Your task to perform on an android device: Open Yahoo.com Image 0: 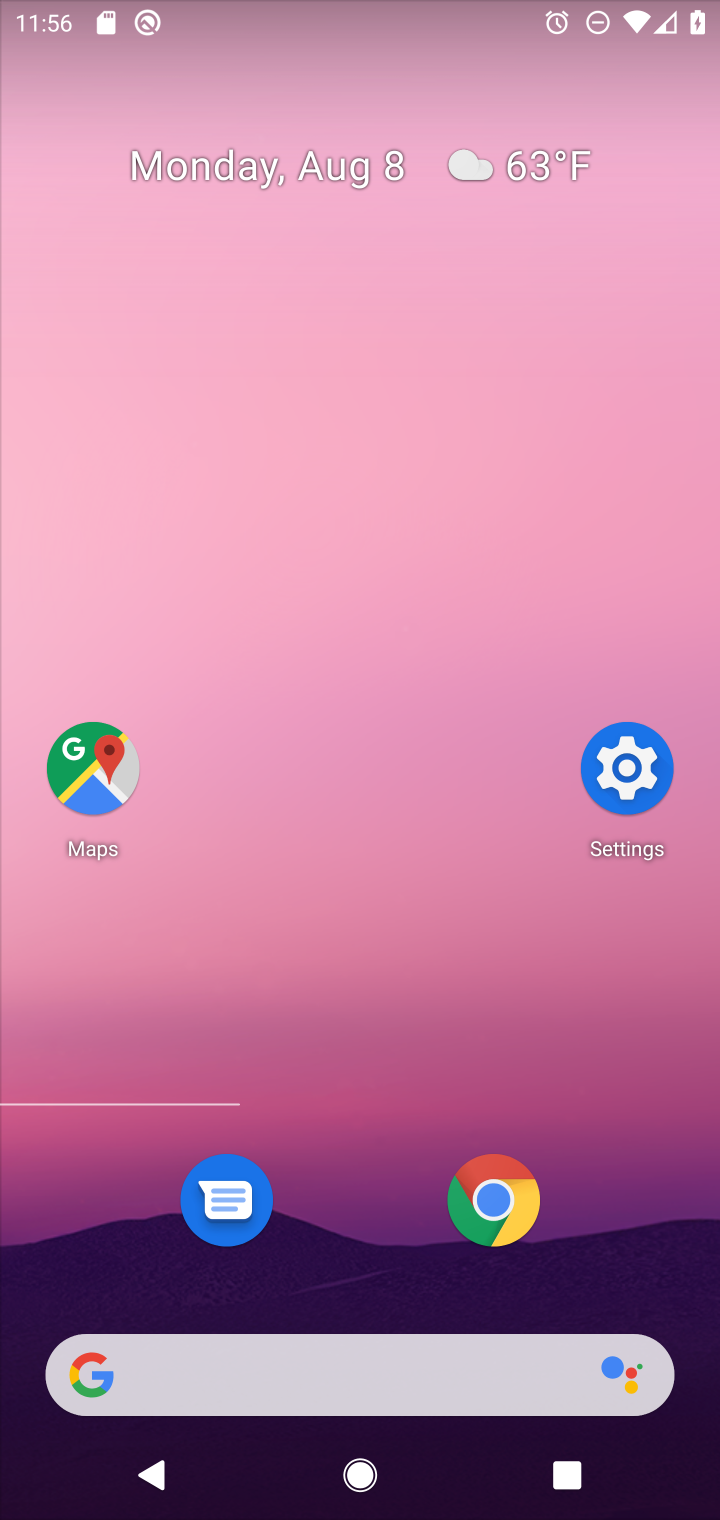
Step 0: press home button
Your task to perform on an android device: Open Yahoo.com Image 1: 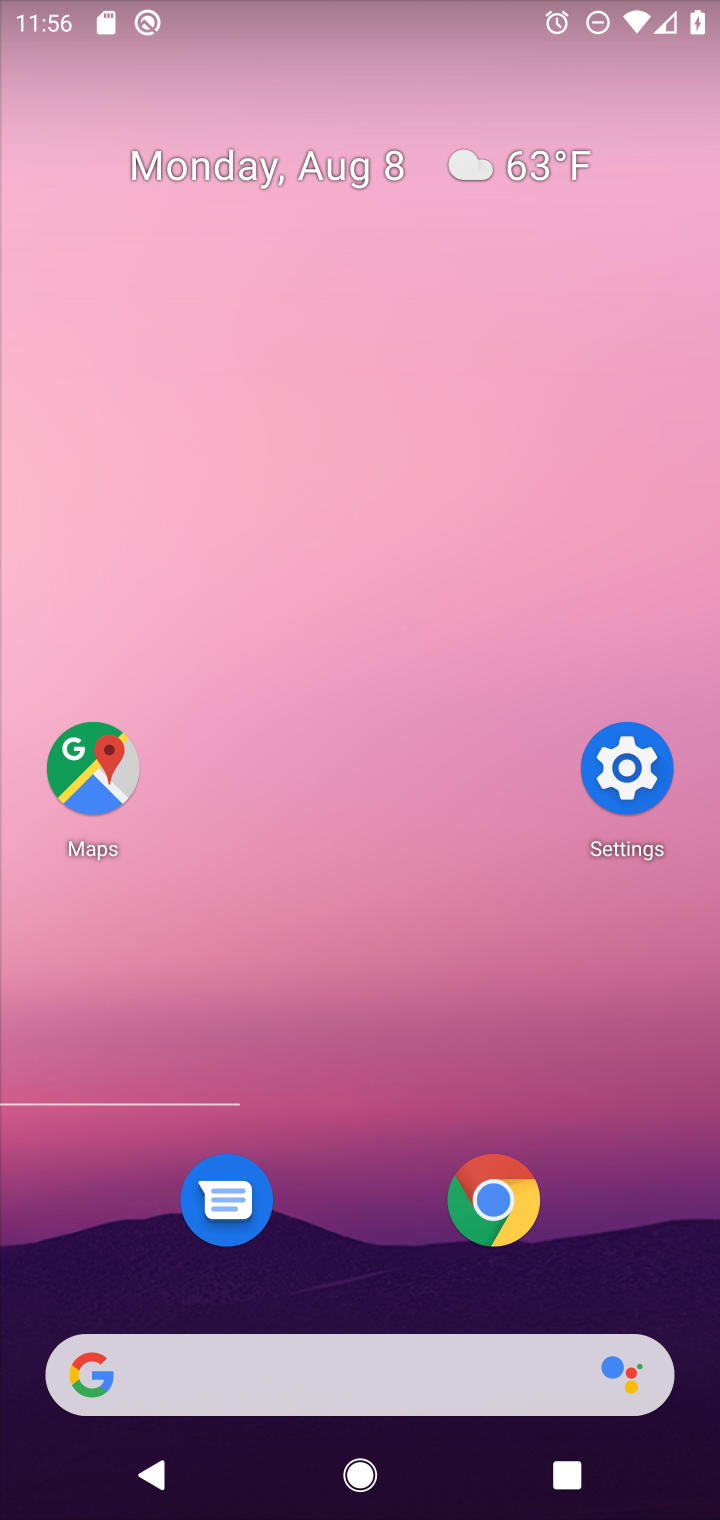
Step 1: click (482, 1202)
Your task to perform on an android device: Open Yahoo.com Image 2: 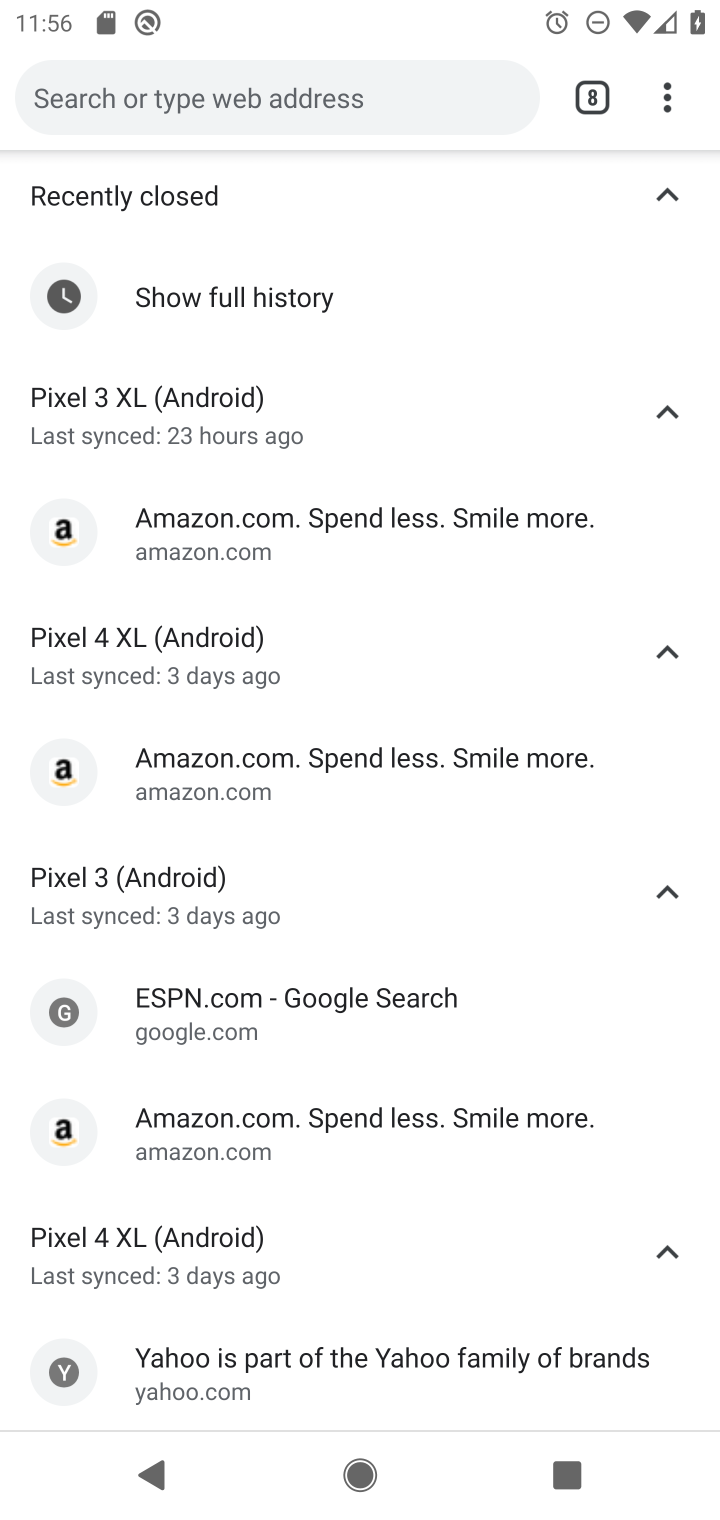
Step 2: drag from (659, 93) to (331, 289)
Your task to perform on an android device: Open Yahoo.com Image 3: 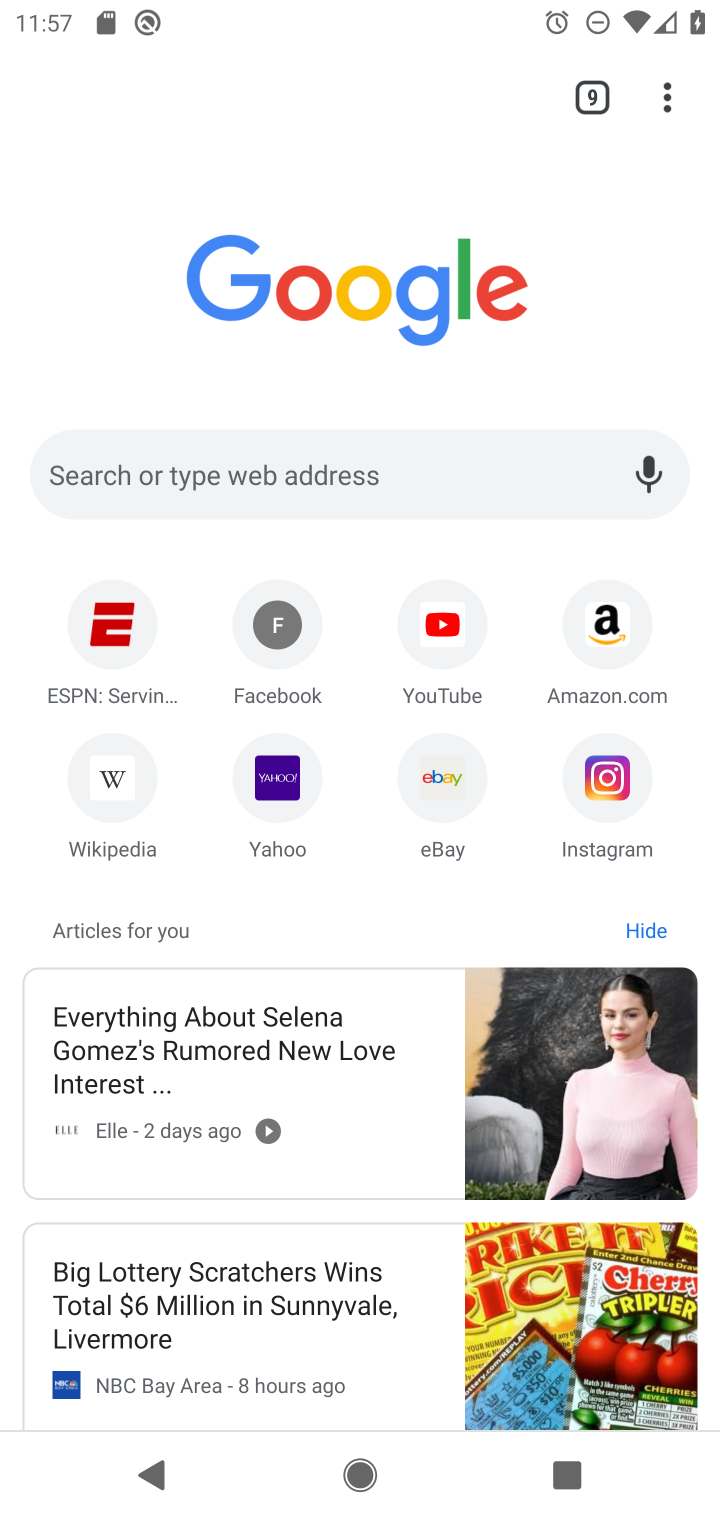
Step 3: click (277, 785)
Your task to perform on an android device: Open Yahoo.com Image 4: 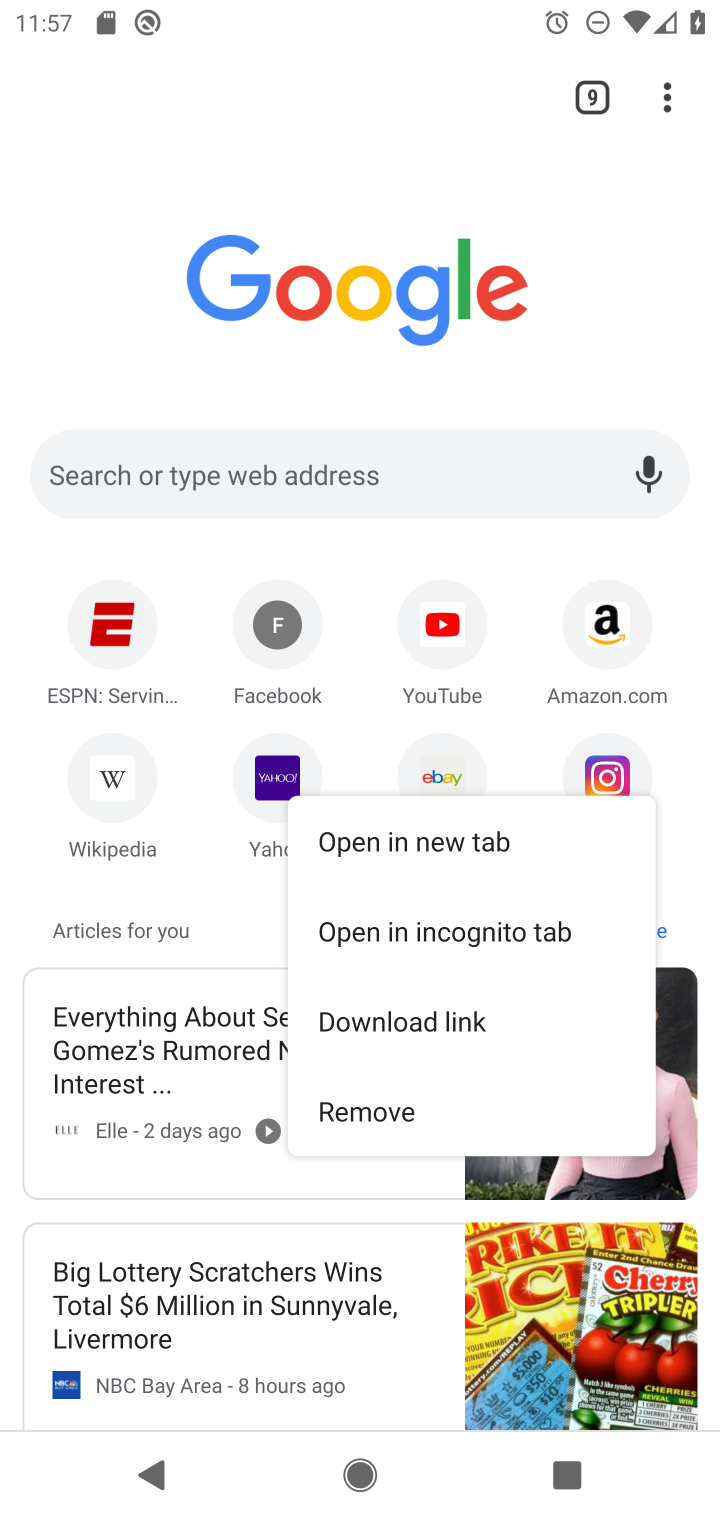
Step 4: click (262, 764)
Your task to perform on an android device: Open Yahoo.com Image 5: 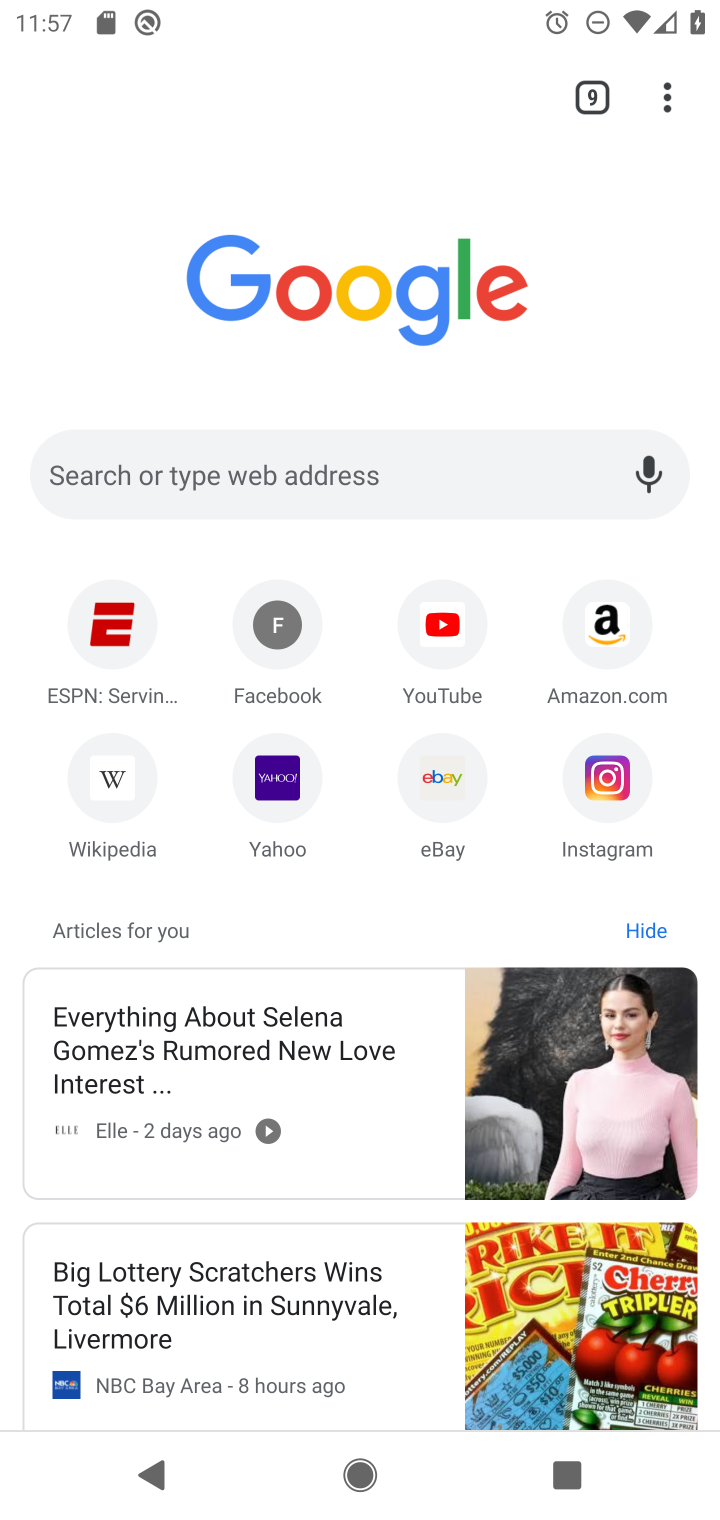
Step 5: click (278, 777)
Your task to perform on an android device: Open Yahoo.com Image 6: 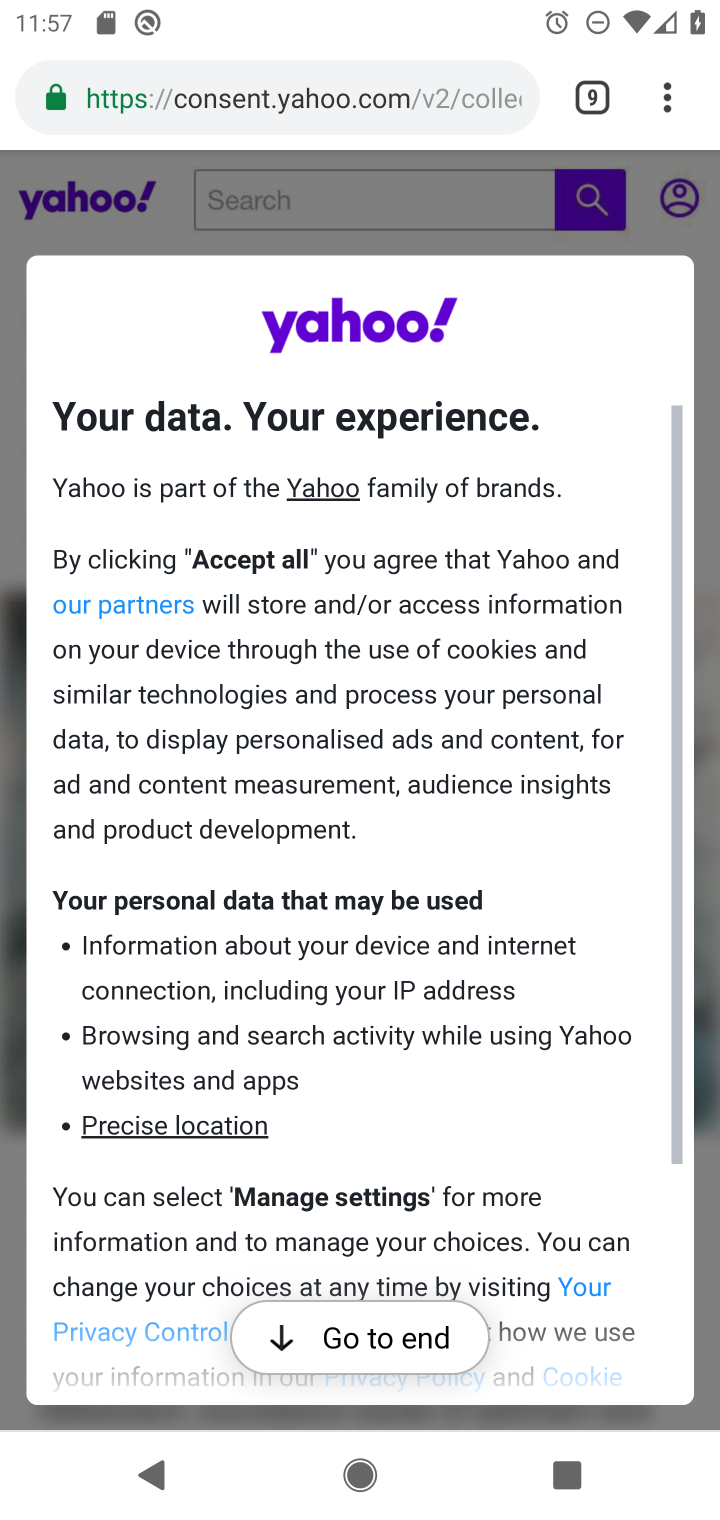
Step 6: drag from (253, 1128) to (433, 249)
Your task to perform on an android device: Open Yahoo.com Image 7: 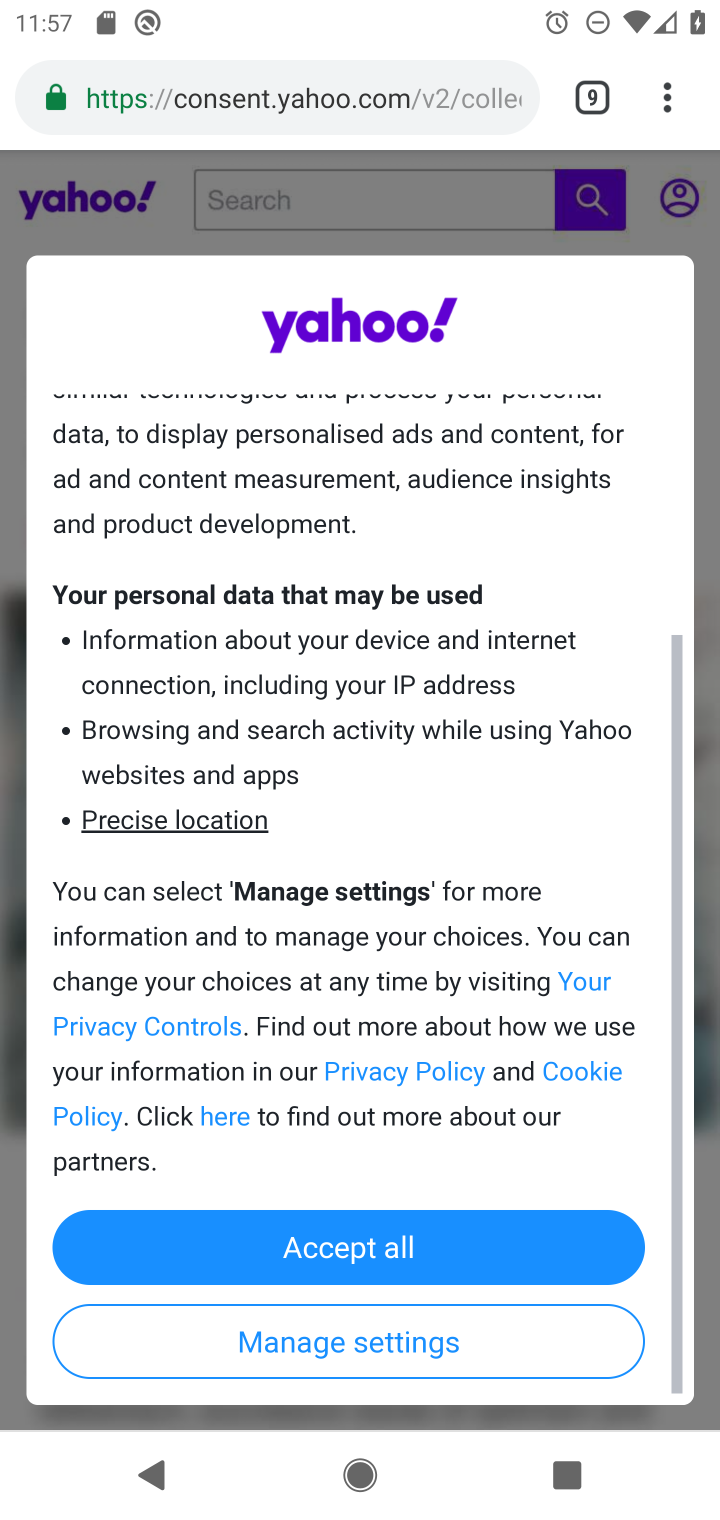
Step 7: click (401, 1243)
Your task to perform on an android device: Open Yahoo.com Image 8: 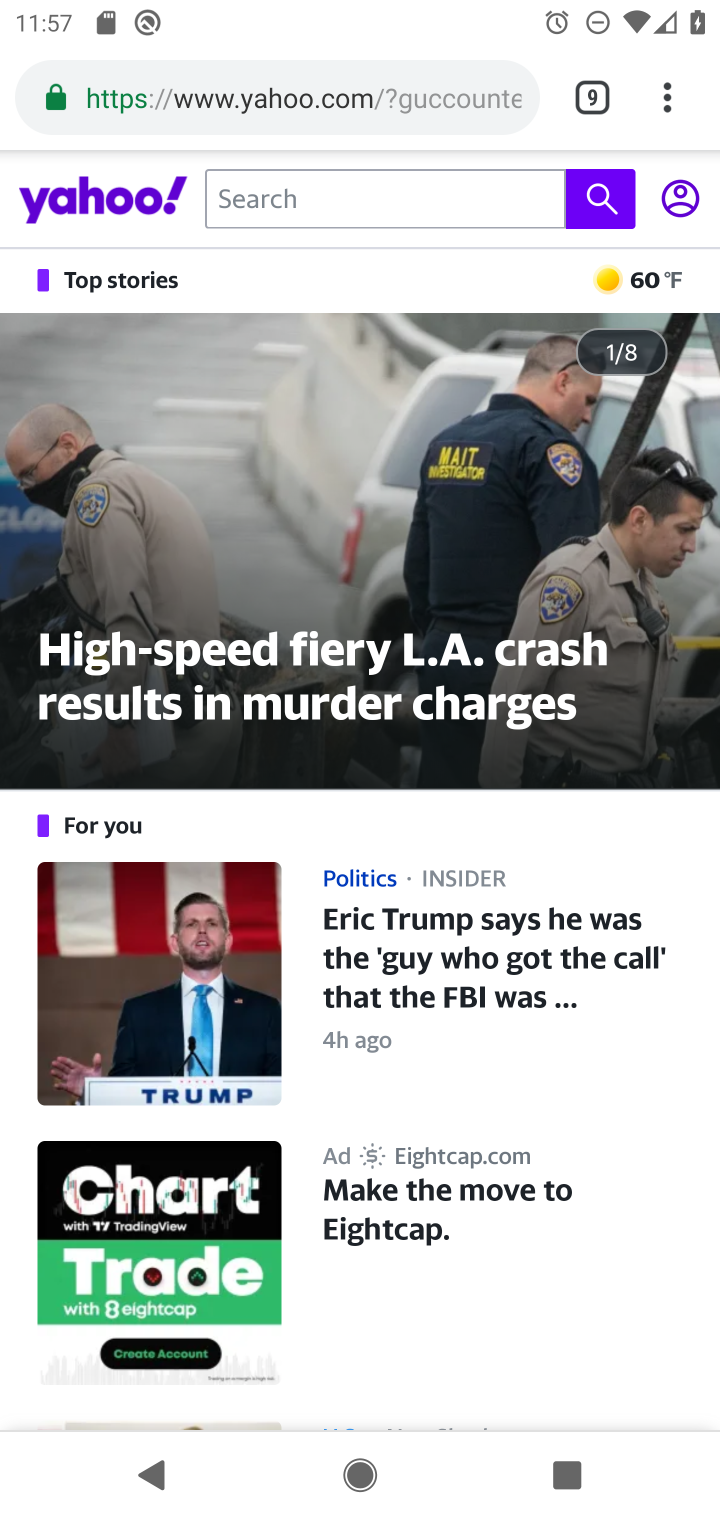
Step 8: task complete